Your task to perform on an android device: empty trash in the gmail app Image 0: 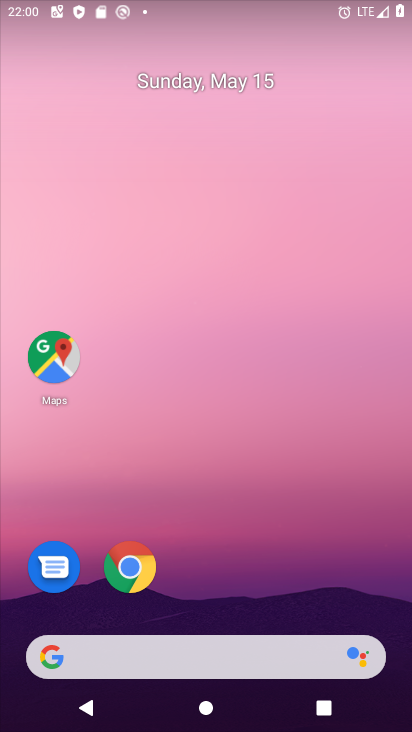
Step 0: drag from (259, 700) to (276, 38)
Your task to perform on an android device: empty trash in the gmail app Image 1: 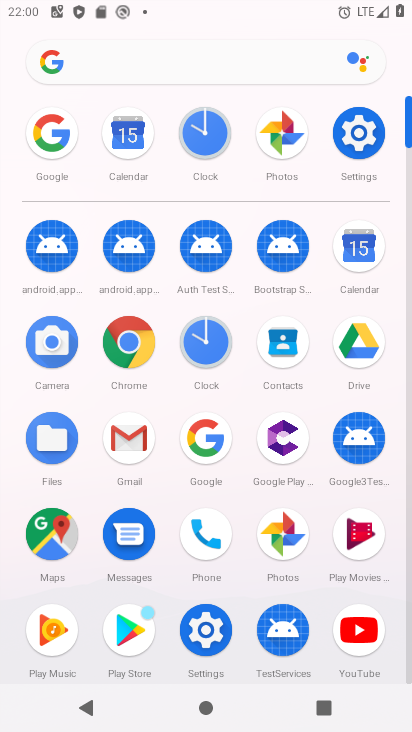
Step 1: click (133, 440)
Your task to perform on an android device: empty trash in the gmail app Image 2: 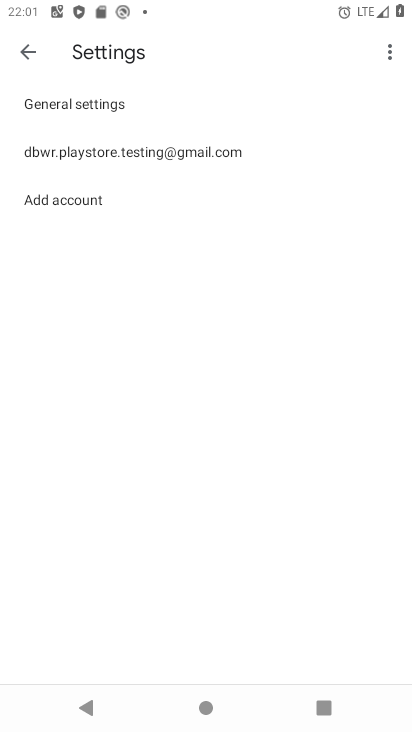
Step 2: click (35, 59)
Your task to perform on an android device: empty trash in the gmail app Image 3: 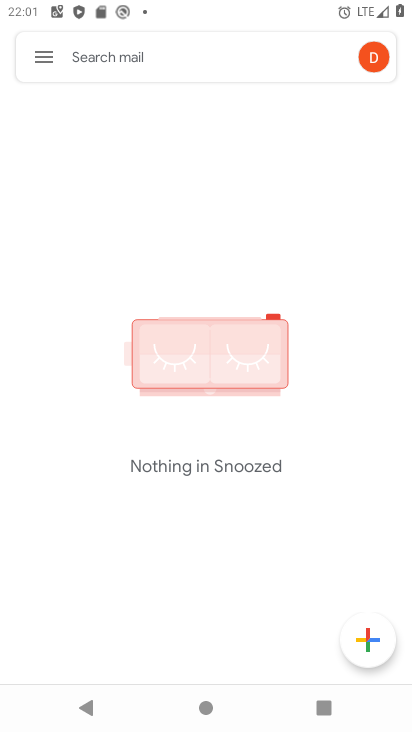
Step 3: click (35, 59)
Your task to perform on an android device: empty trash in the gmail app Image 4: 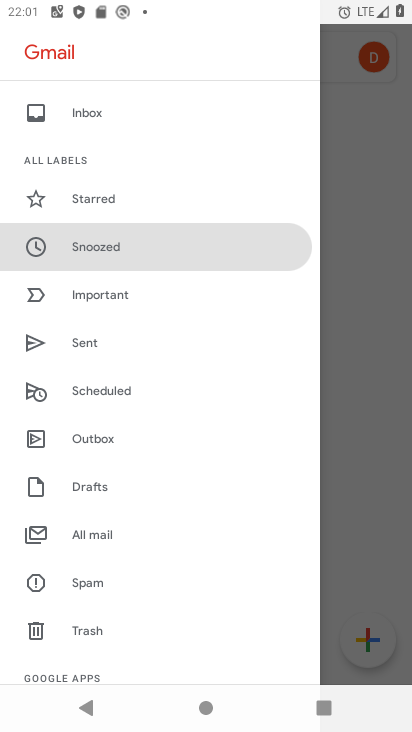
Step 4: click (116, 639)
Your task to perform on an android device: empty trash in the gmail app Image 5: 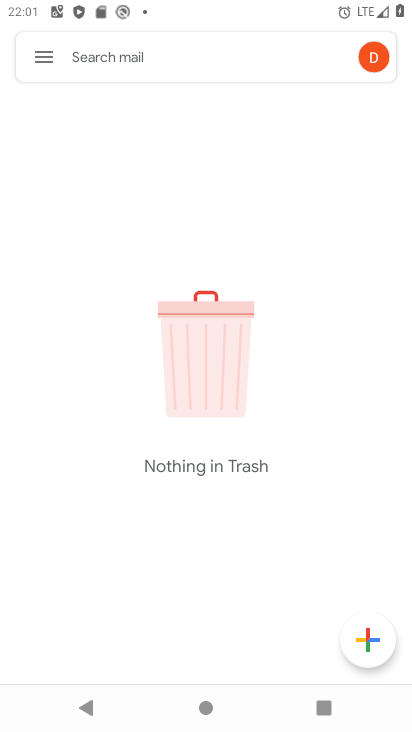
Step 5: task complete